Your task to perform on an android device: Go to wifi settings Image 0: 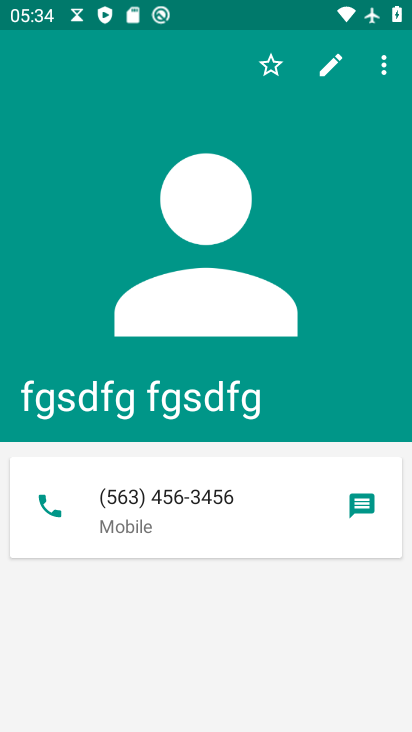
Step 0: press home button
Your task to perform on an android device: Go to wifi settings Image 1: 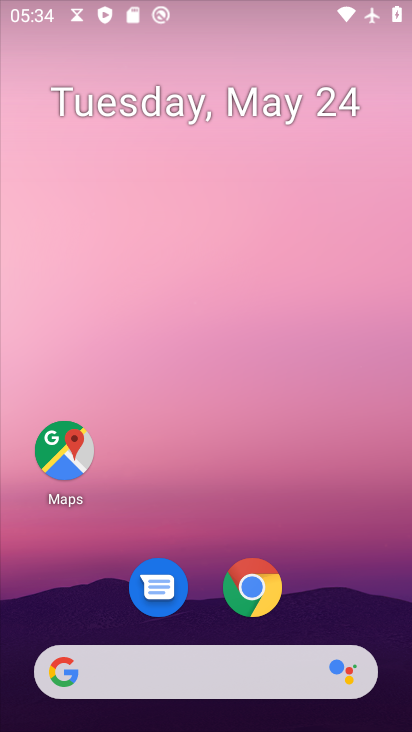
Step 1: drag from (335, 575) to (183, 0)
Your task to perform on an android device: Go to wifi settings Image 2: 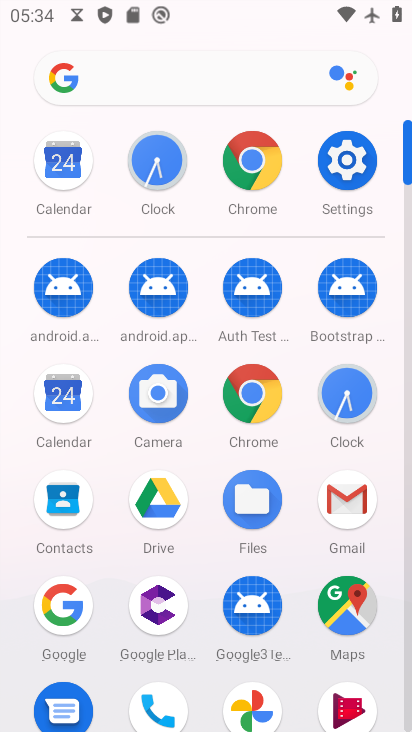
Step 2: click (368, 195)
Your task to perform on an android device: Go to wifi settings Image 3: 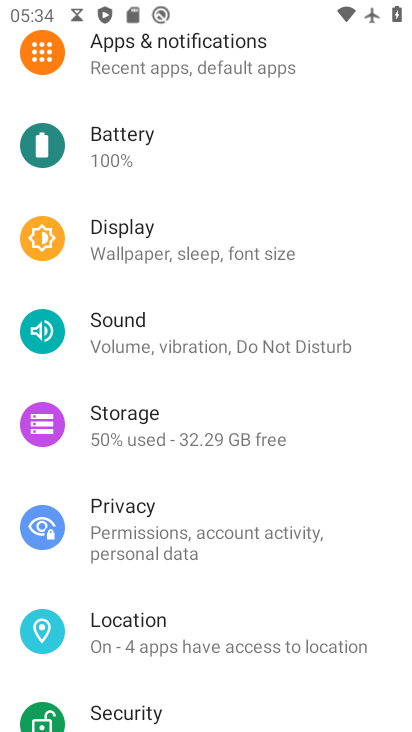
Step 3: drag from (254, 124) to (221, 624)
Your task to perform on an android device: Go to wifi settings Image 4: 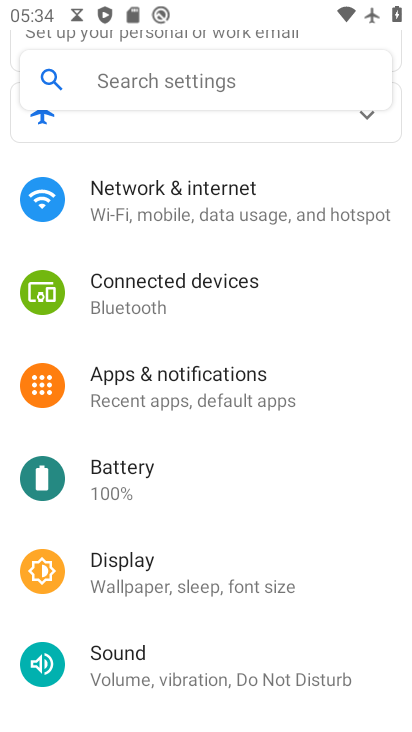
Step 4: click (178, 204)
Your task to perform on an android device: Go to wifi settings Image 5: 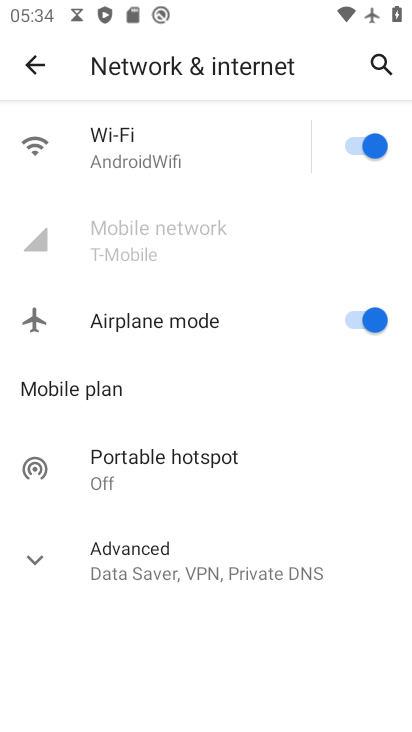
Step 5: click (185, 145)
Your task to perform on an android device: Go to wifi settings Image 6: 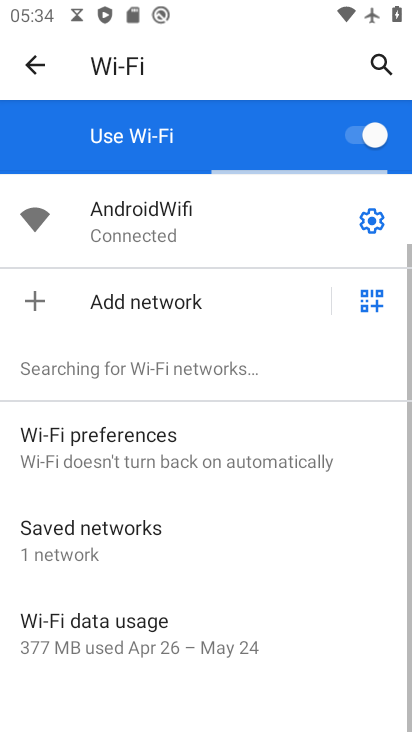
Step 6: task complete